Your task to perform on an android device: toggle airplane mode Image 0: 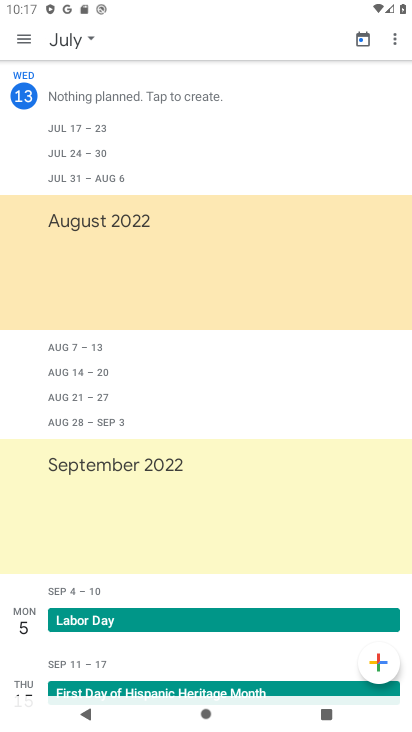
Step 0: press home button
Your task to perform on an android device: toggle airplane mode Image 1: 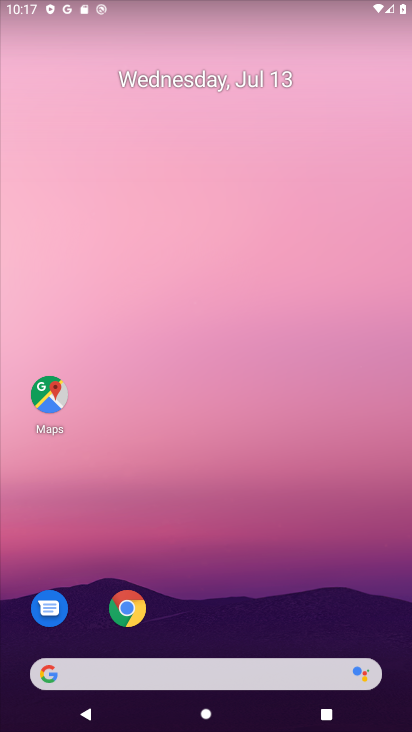
Step 1: drag from (236, 631) to (172, 248)
Your task to perform on an android device: toggle airplane mode Image 2: 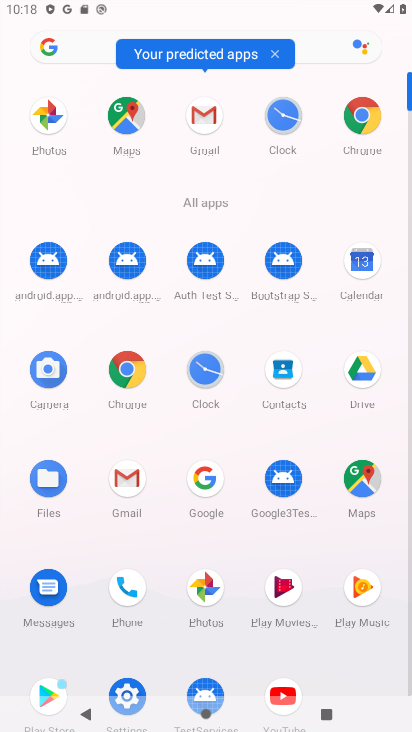
Step 2: click (126, 681)
Your task to perform on an android device: toggle airplane mode Image 3: 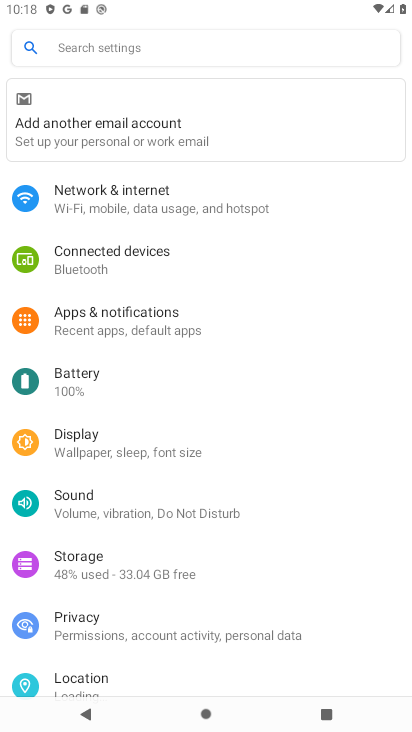
Step 3: click (290, 174)
Your task to perform on an android device: toggle airplane mode Image 4: 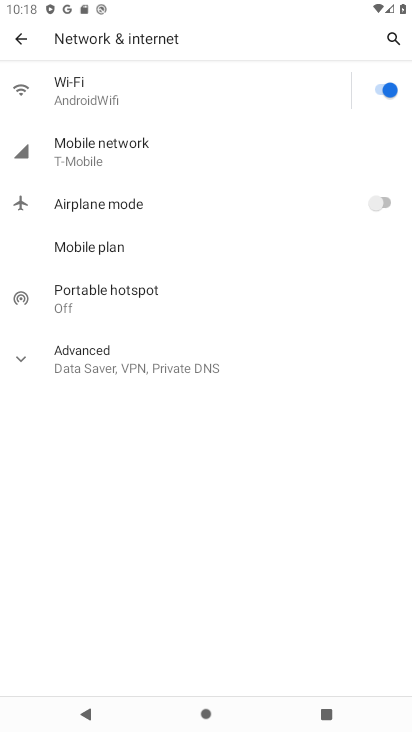
Step 4: click (376, 208)
Your task to perform on an android device: toggle airplane mode Image 5: 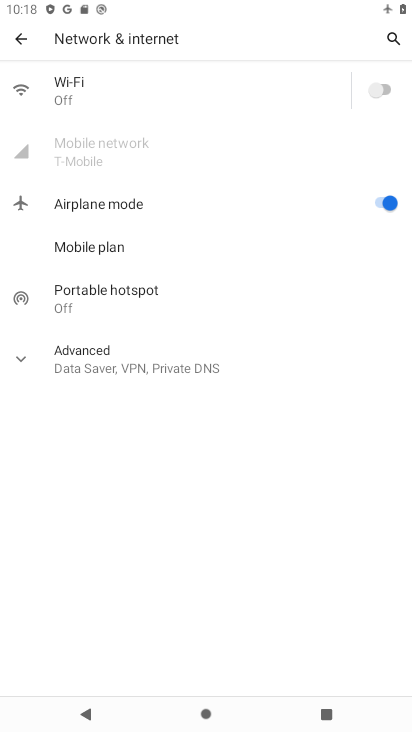
Step 5: task complete